Your task to perform on an android device: Open Yahoo.com Image 0: 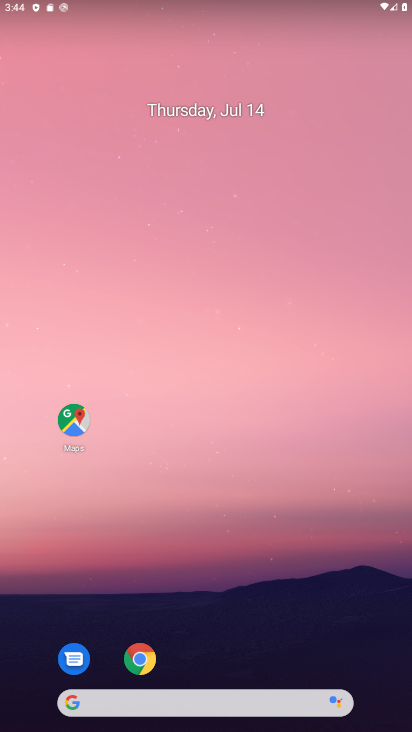
Step 0: drag from (263, 520) to (214, 83)
Your task to perform on an android device: Open Yahoo.com Image 1: 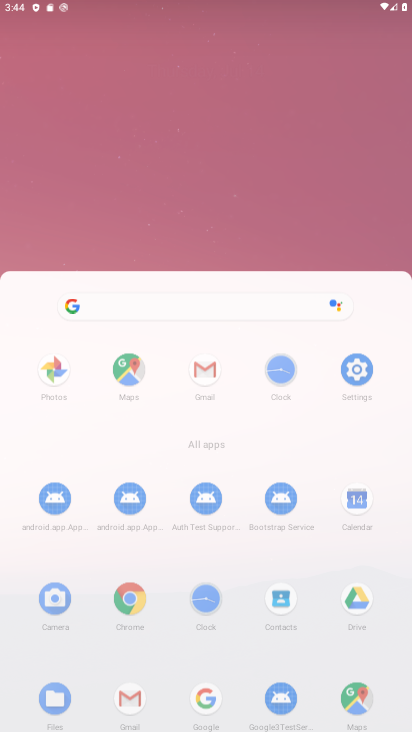
Step 1: drag from (265, 621) to (205, 166)
Your task to perform on an android device: Open Yahoo.com Image 2: 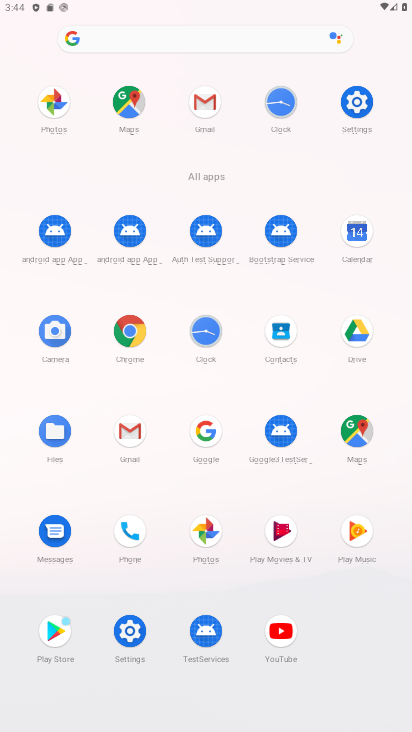
Step 2: drag from (233, 555) to (189, 146)
Your task to perform on an android device: Open Yahoo.com Image 3: 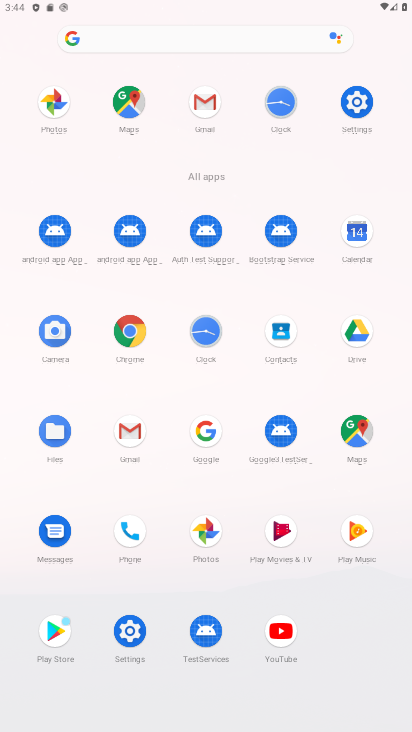
Step 3: click (357, 105)
Your task to perform on an android device: Open Yahoo.com Image 4: 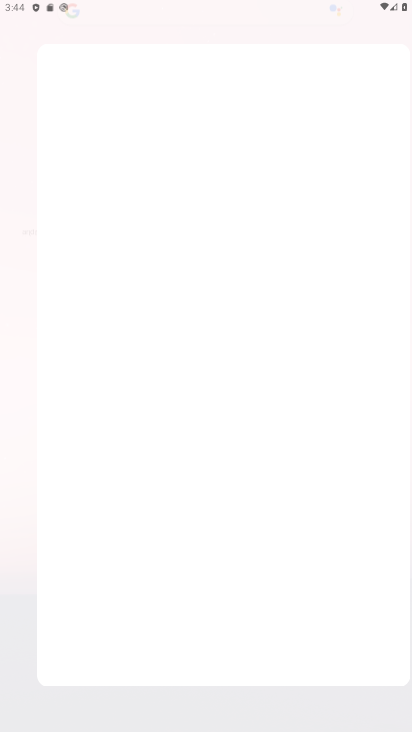
Step 4: click (132, 336)
Your task to perform on an android device: Open Yahoo.com Image 5: 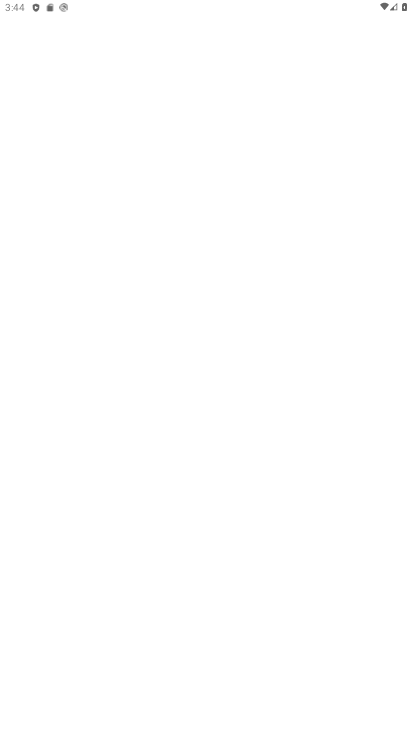
Step 5: click (132, 330)
Your task to perform on an android device: Open Yahoo.com Image 6: 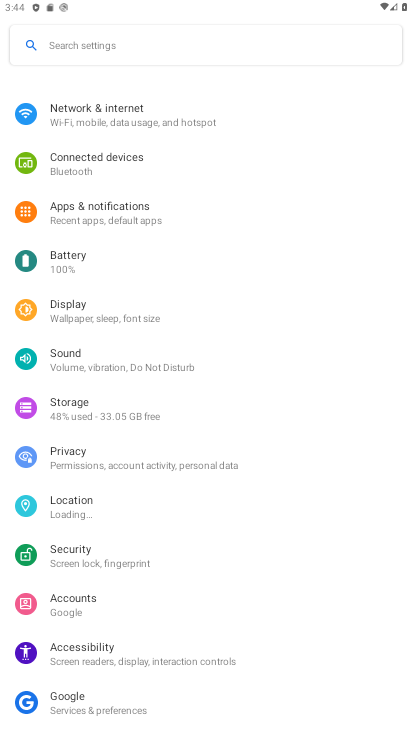
Step 6: press back button
Your task to perform on an android device: Open Yahoo.com Image 7: 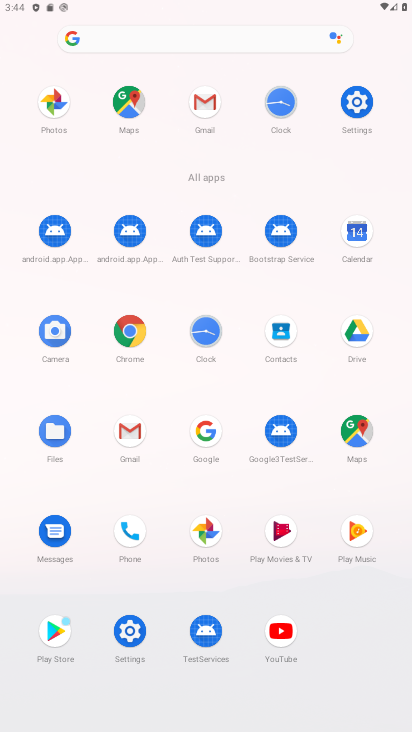
Step 7: click (136, 343)
Your task to perform on an android device: Open Yahoo.com Image 8: 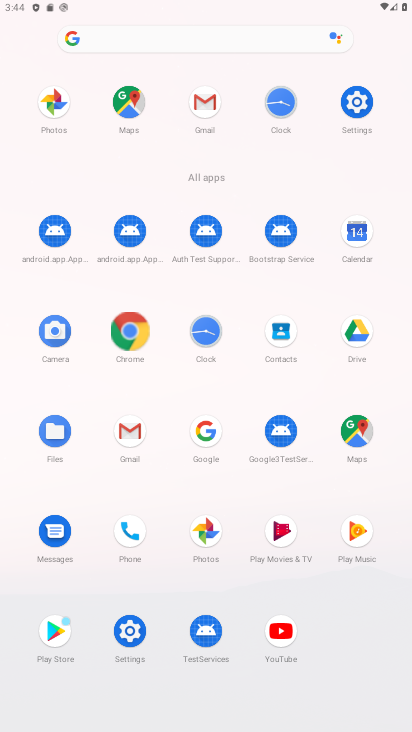
Step 8: click (133, 334)
Your task to perform on an android device: Open Yahoo.com Image 9: 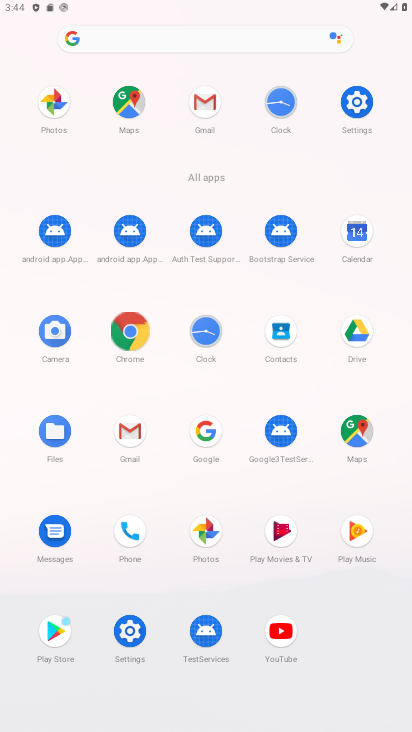
Step 9: click (133, 334)
Your task to perform on an android device: Open Yahoo.com Image 10: 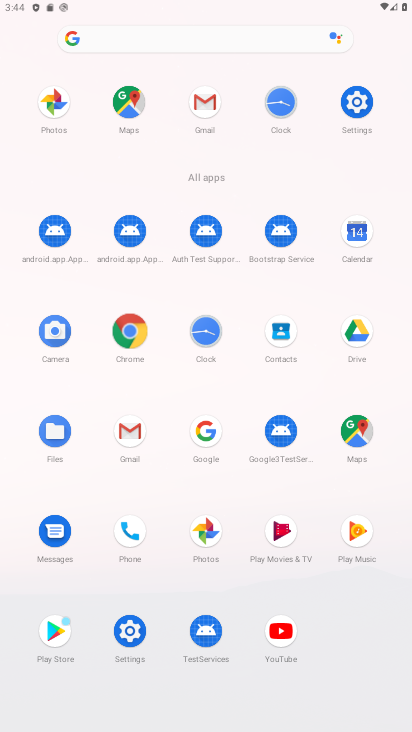
Step 10: click (132, 338)
Your task to perform on an android device: Open Yahoo.com Image 11: 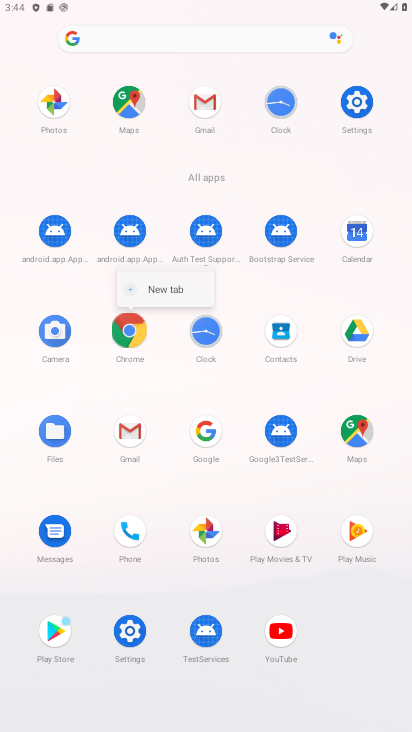
Step 11: click (133, 340)
Your task to perform on an android device: Open Yahoo.com Image 12: 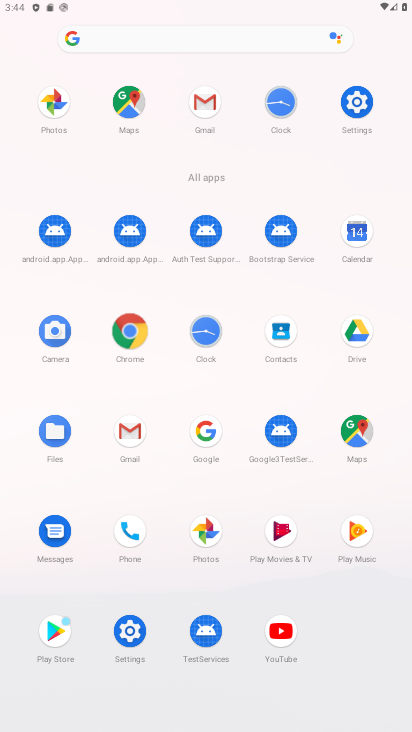
Step 12: click (130, 349)
Your task to perform on an android device: Open Yahoo.com Image 13: 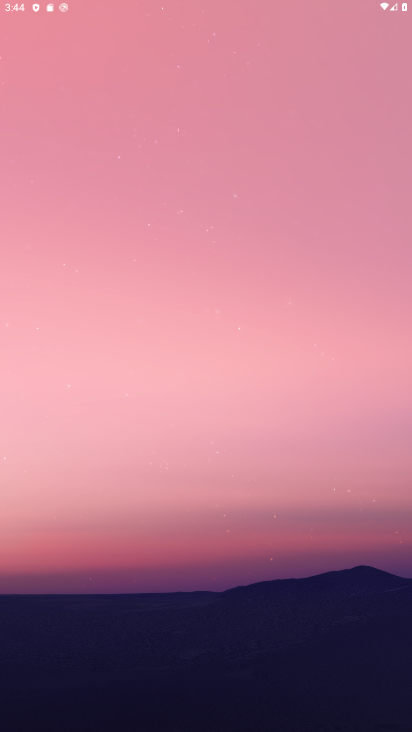
Step 13: click (121, 333)
Your task to perform on an android device: Open Yahoo.com Image 14: 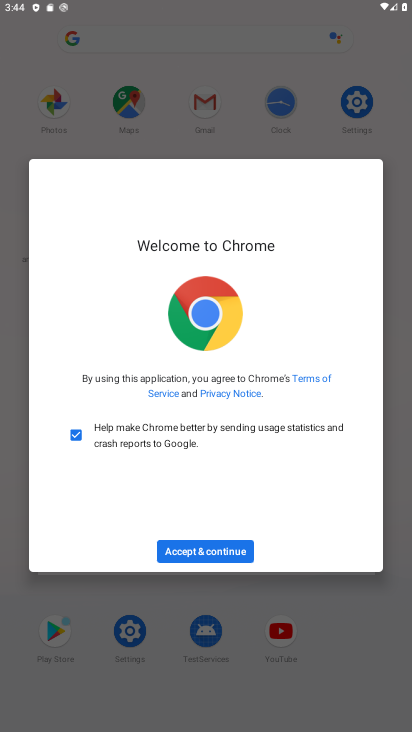
Step 14: click (226, 550)
Your task to perform on an android device: Open Yahoo.com Image 15: 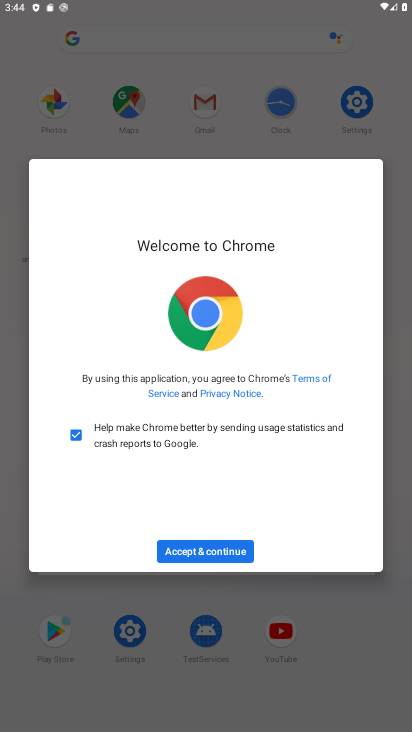
Step 15: click (231, 541)
Your task to perform on an android device: Open Yahoo.com Image 16: 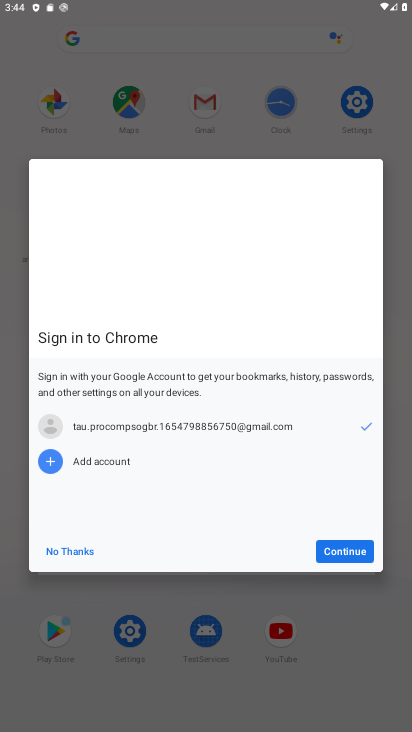
Step 16: click (374, 553)
Your task to perform on an android device: Open Yahoo.com Image 17: 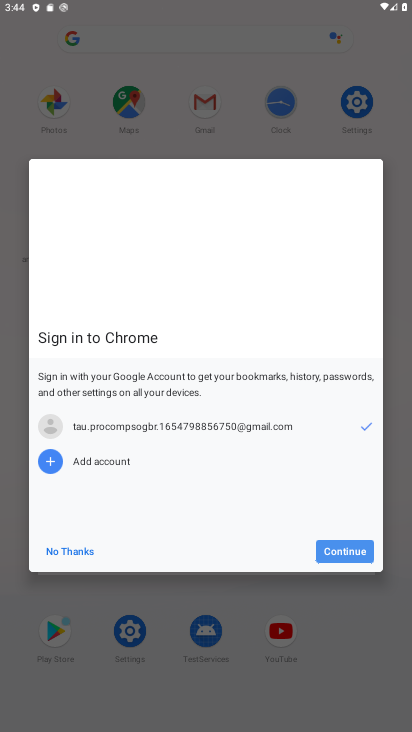
Step 17: click (356, 545)
Your task to perform on an android device: Open Yahoo.com Image 18: 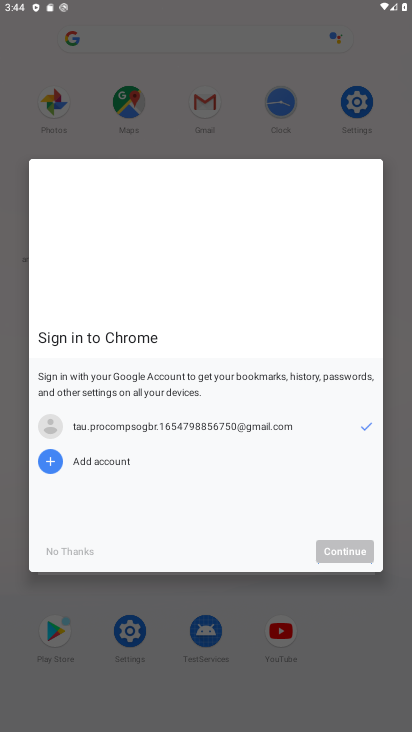
Step 18: click (356, 545)
Your task to perform on an android device: Open Yahoo.com Image 19: 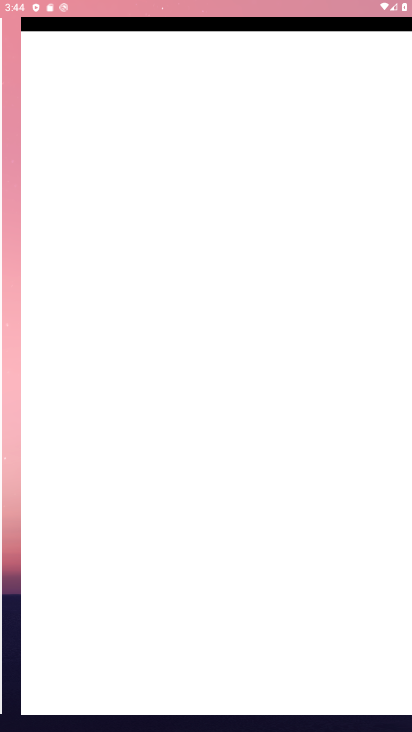
Step 19: click (356, 556)
Your task to perform on an android device: Open Yahoo.com Image 20: 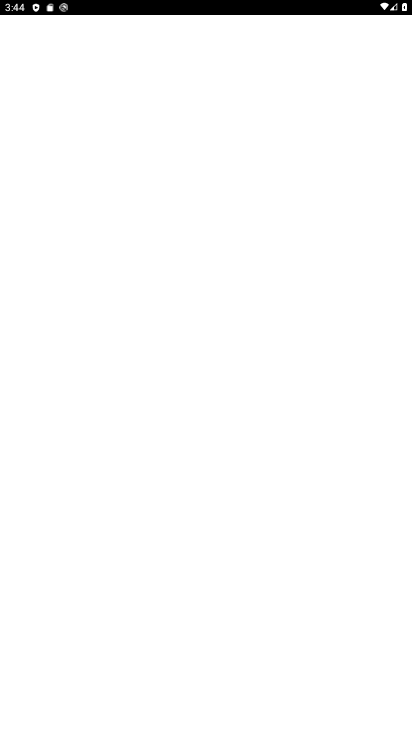
Step 20: click (355, 556)
Your task to perform on an android device: Open Yahoo.com Image 21: 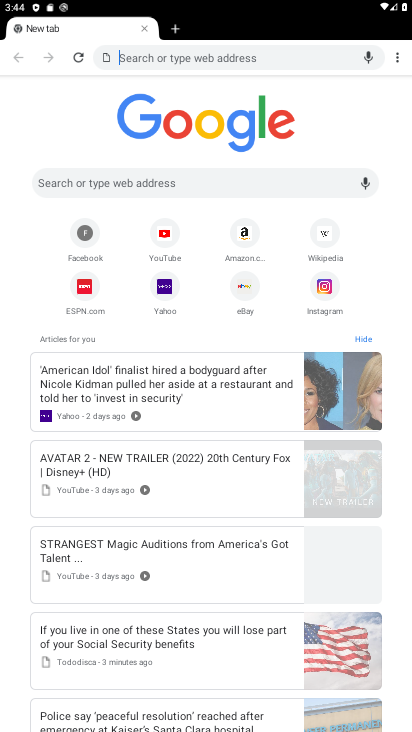
Step 21: click (174, 282)
Your task to perform on an android device: Open Yahoo.com Image 22: 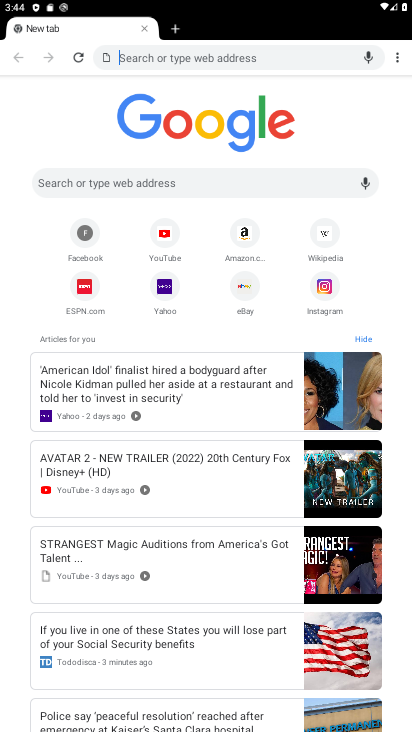
Step 22: click (173, 282)
Your task to perform on an android device: Open Yahoo.com Image 23: 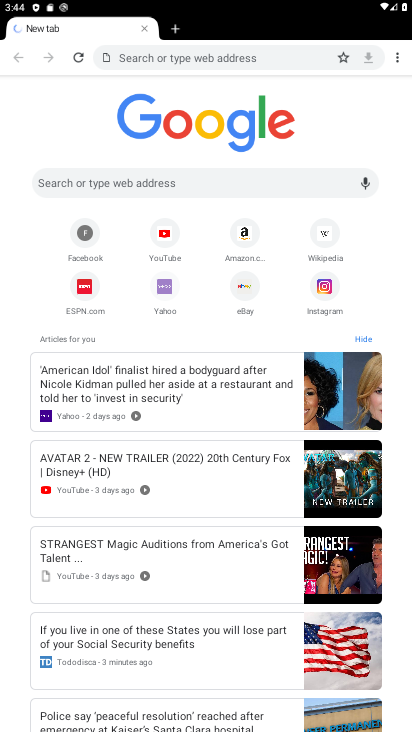
Step 23: click (168, 289)
Your task to perform on an android device: Open Yahoo.com Image 24: 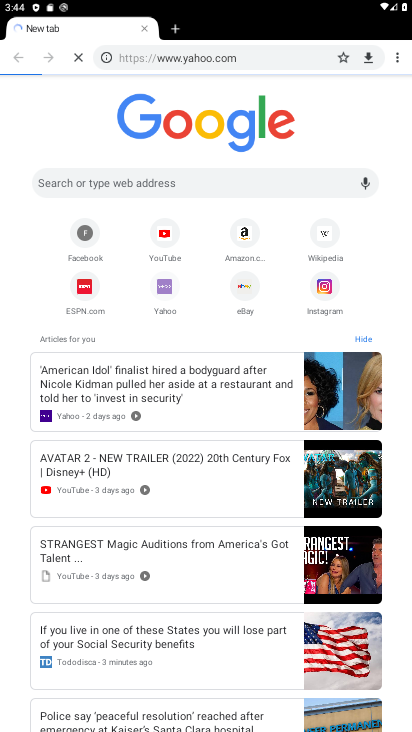
Step 24: click (165, 298)
Your task to perform on an android device: Open Yahoo.com Image 25: 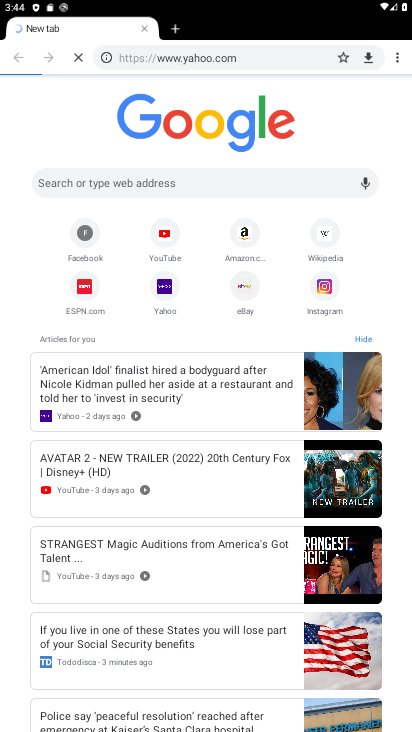
Step 25: click (161, 298)
Your task to perform on an android device: Open Yahoo.com Image 26: 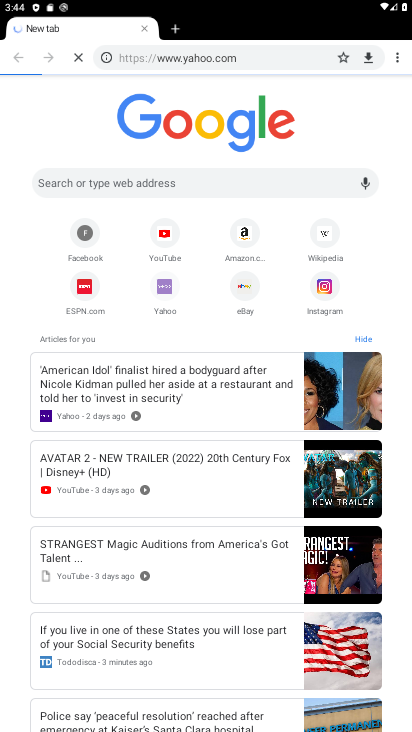
Step 26: click (161, 298)
Your task to perform on an android device: Open Yahoo.com Image 27: 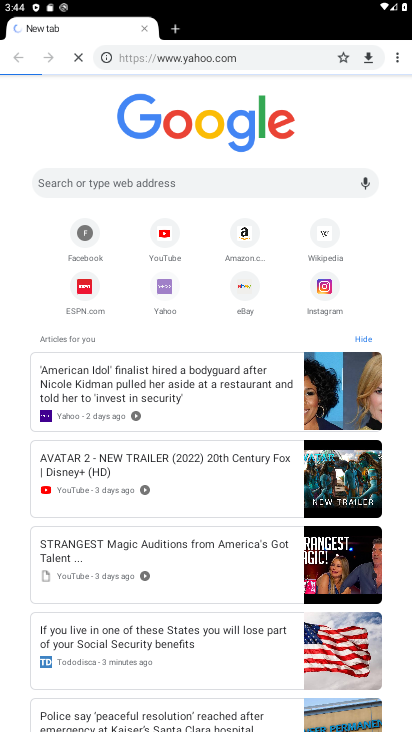
Step 27: click (164, 292)
Your task to perform on an android device: Open Yahoo.com Image 28: 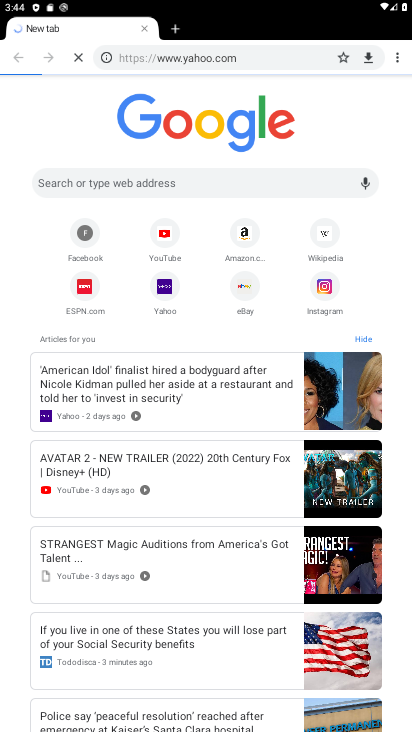
Step 28: click (167, 290)
Your task to perform on an android device: Open Yahoo.com Image 29: 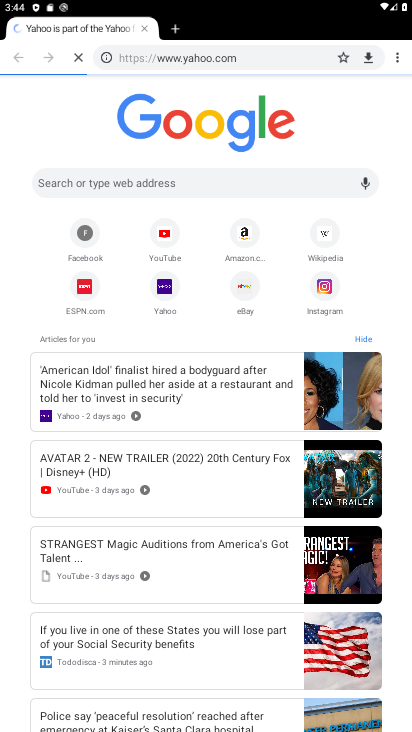
Step 29: click (169, 285)
Your task to perform on an android device: Open Yahoo.com Image 30: 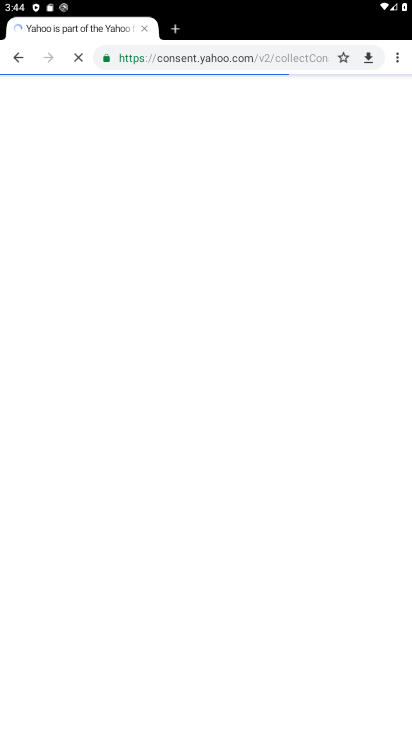
Step 30: click (169, 287)
Your task to perform on an android device: Open Yahoo.com Image 31: 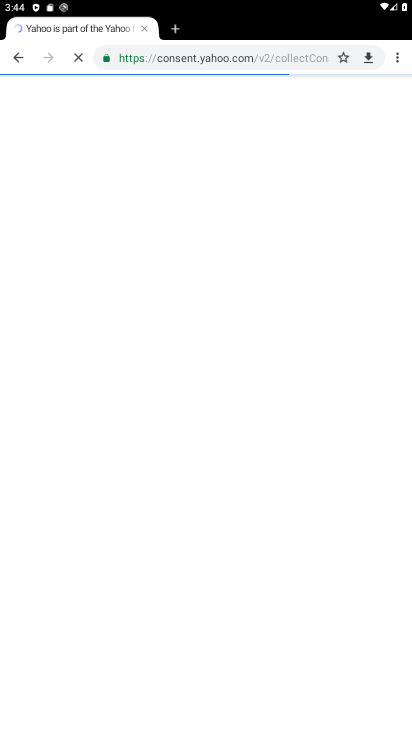
Step 31: click (169, 288)
Your task to perform on an android device: Open Yahoo.com Image 32: 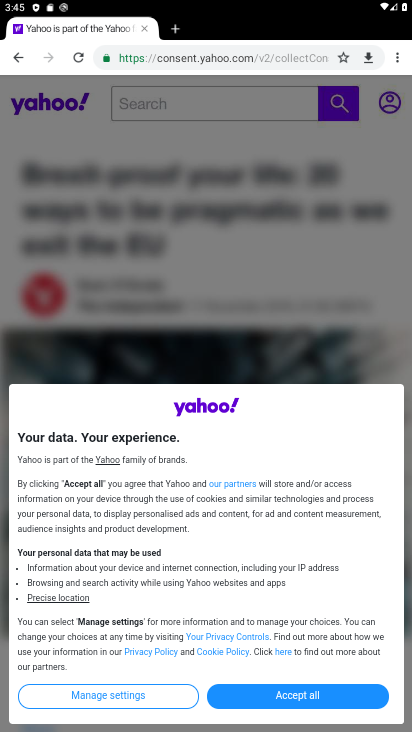
Step 32: task complete